Your task to perform on an android device: turn vacation reply on in the gmail app Image 0: 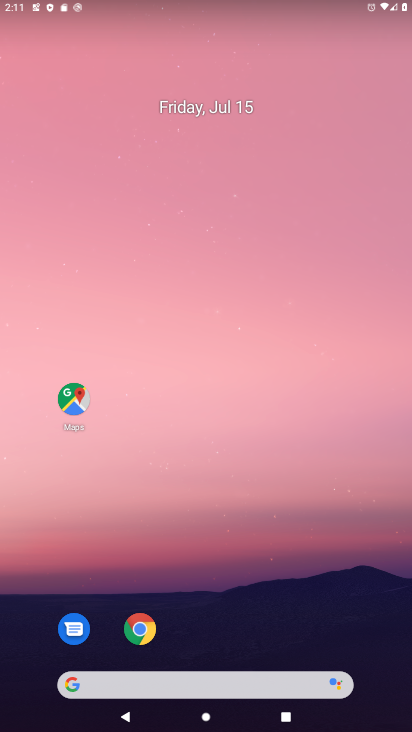
Step 0: drag from (355, 604) to (181, 0)
Your task to perform on an android device: turn vacation reply on in the gmail app Image 1: 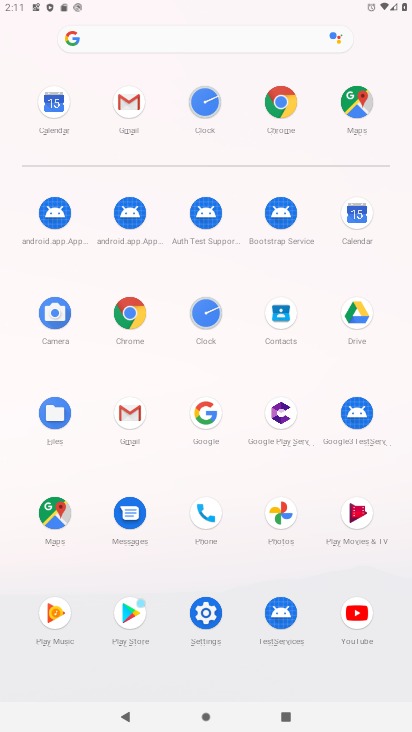
Step 1: click (127, 102)
Your task to perform on an android device: turn vacation reply on in the gmail app Image 2: 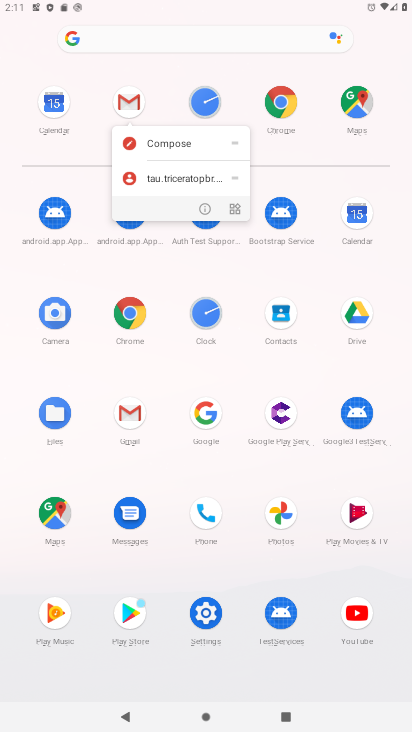
Step 2: click (127, 102)
Your task to perform on an android device: turn vacation reply on in the gmail app Image 3: 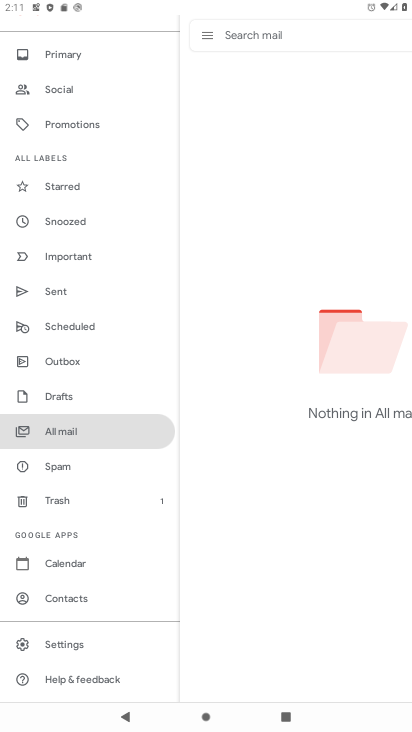
Step 3: drag from (90, 609) to (130, 242)
Your task to perform on an android device: turn vacation reply on in the gmail app Image 4: 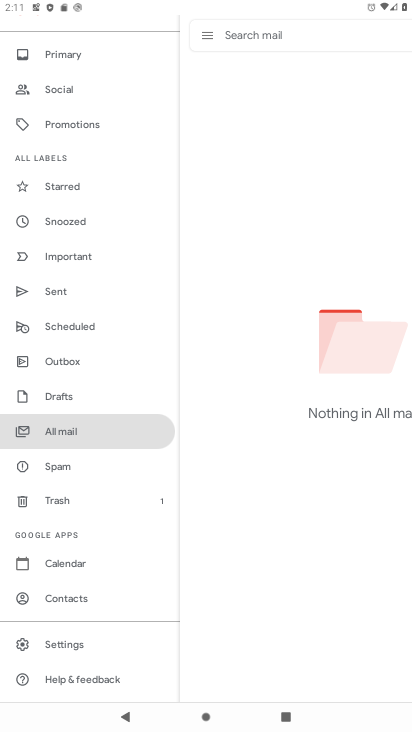
Step 4: click (71, 648)
Your task to perform on an android device: turn vacation reply on in the gmail app Image 5: 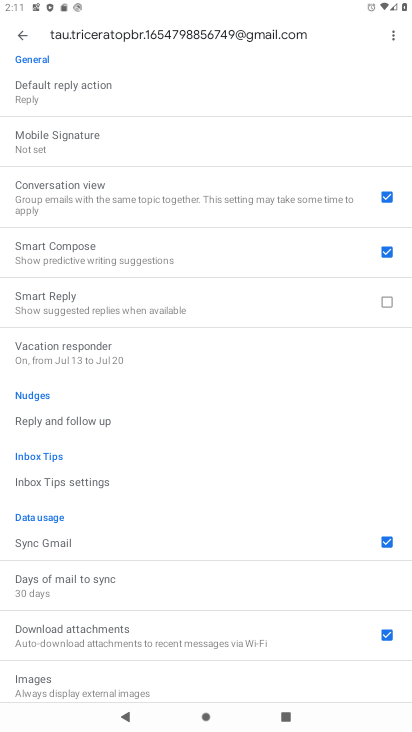
Step 5: click (105, 351)
Your task to perform on an android device: turn vacation reply on in the gmail app Image 6: 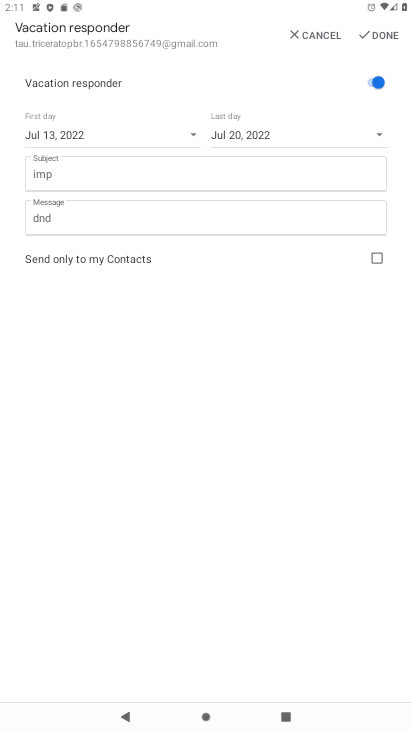
Step 6: task complete